Your task to perform on an android device: Open Chrome and go to settings Image 0: 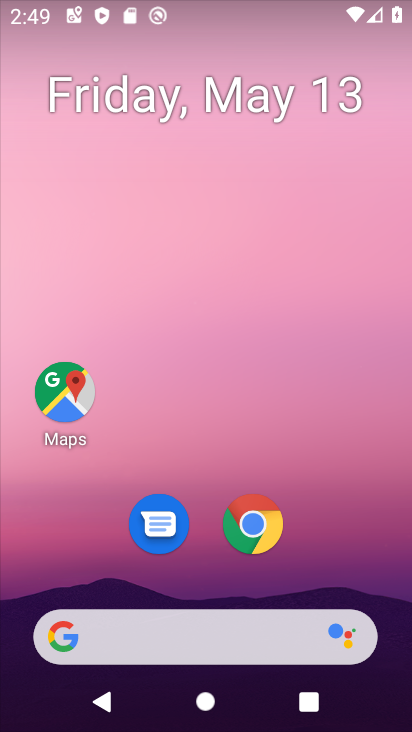
Step 0: click (265, 527)
Your task to perform on an android device: Open Chrome and go to settings Image 1: 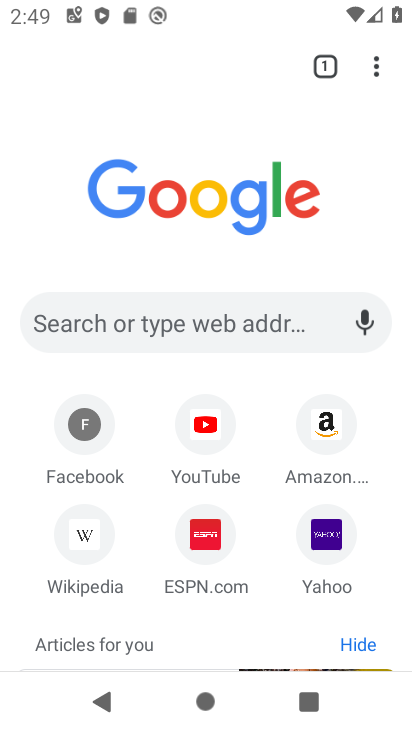
Step 1: click (377, 62)
Your task to perform on an android device: Open Chrome and go to settings Image 2: 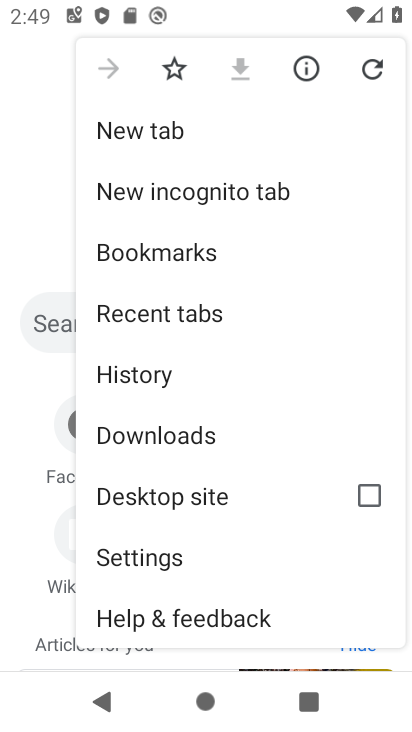
Step 2: click (206, 557)
Your task to perform on an android device: Open Chrome and go to settings Image 3: 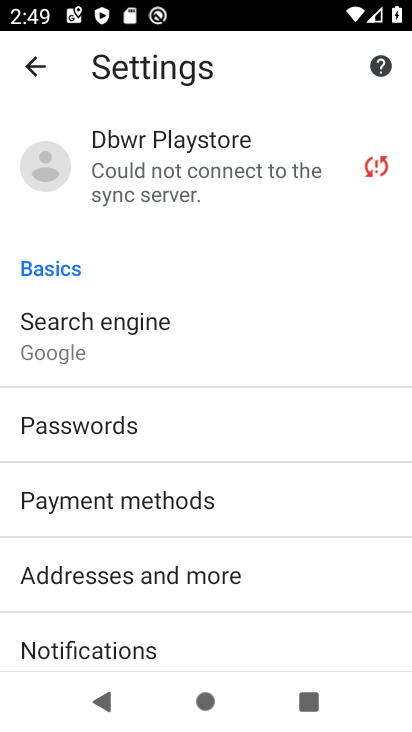
Step 3: task complete